Your task to perform on an android device: Open Yahoo.com Image 0: 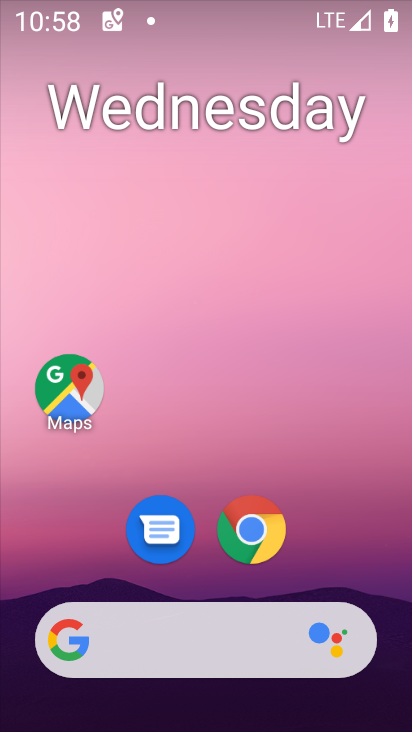
Step 0: click (245, 521)
Your task to perform on an android device: Open Yahoo.com Image 1: 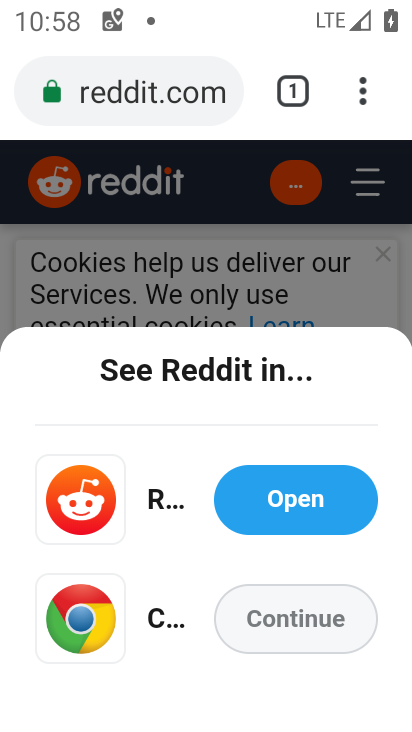
Step 1: click (118, 83)
Your task to perform on an android device: Open Yahoo.com Image 2: 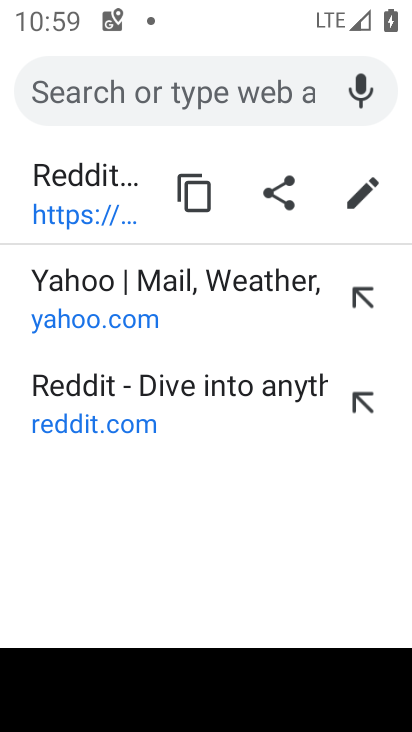
Step 2: type "yahoo.com"
Your task to perform on an android device: Open Yahoo.com Image 3: 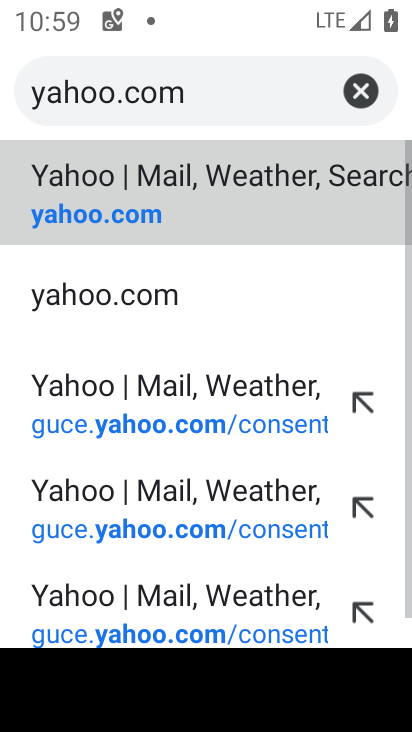
Step 3: click (87, 205)
Your task to perform on an android device: Open Yahoo.com Image 4: 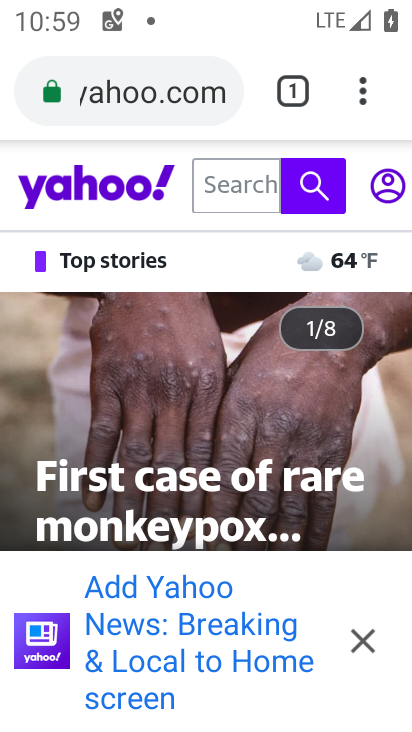
Step 4: task complete